Your task to perform on an android device: install app "Roku - Official Remote Control" Image 0: 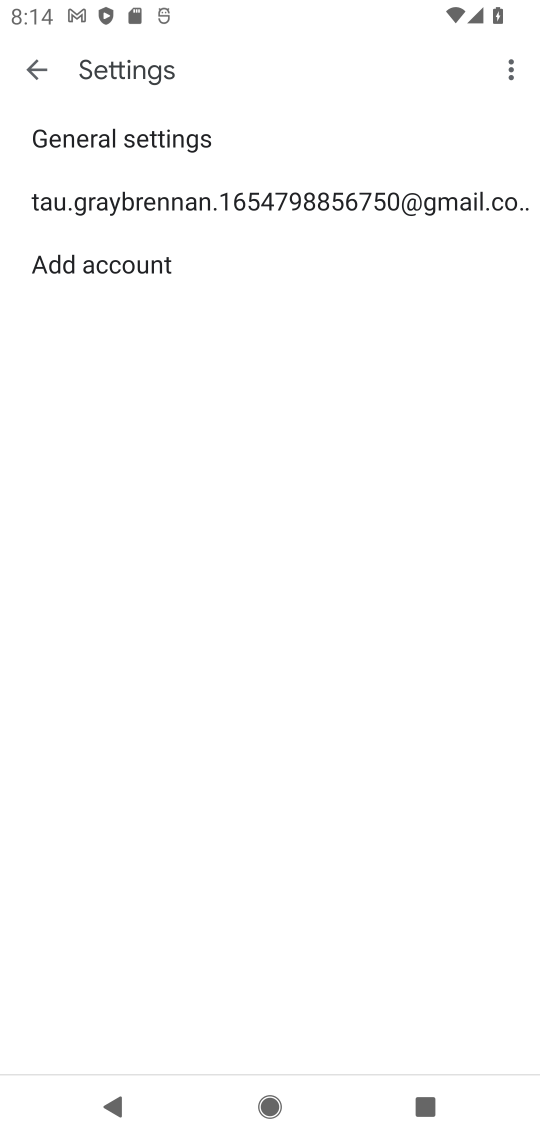
Step 0: press home button
Your task to perform on an android device: install app "Roku - Official Remote Control" Image 1: 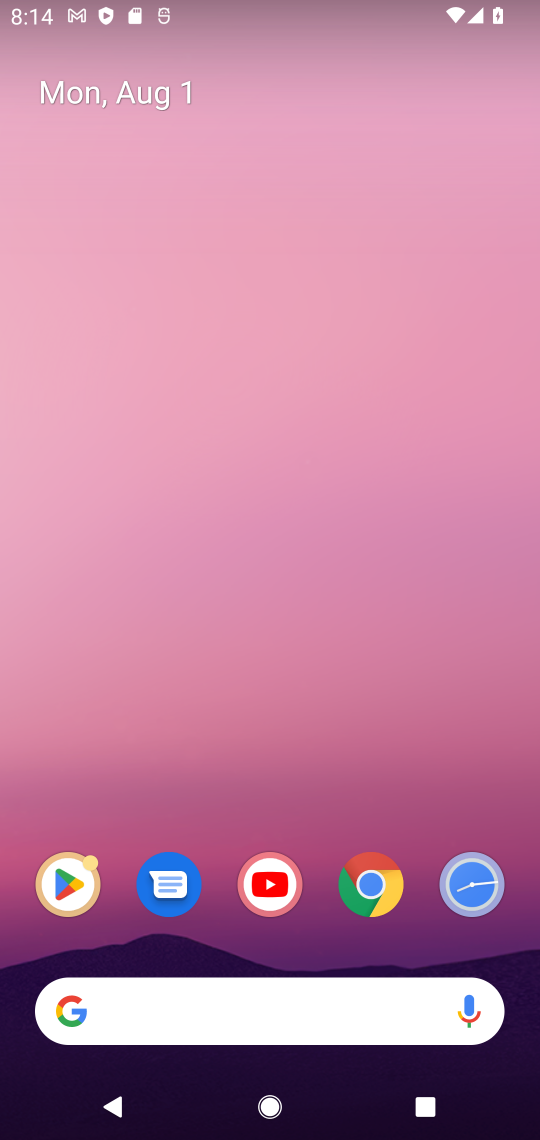
Step 1: drag from (240, 554) to (267, 111)
Your task to perform on an android device: install app "Roku - Official Remote Control" Image 2: 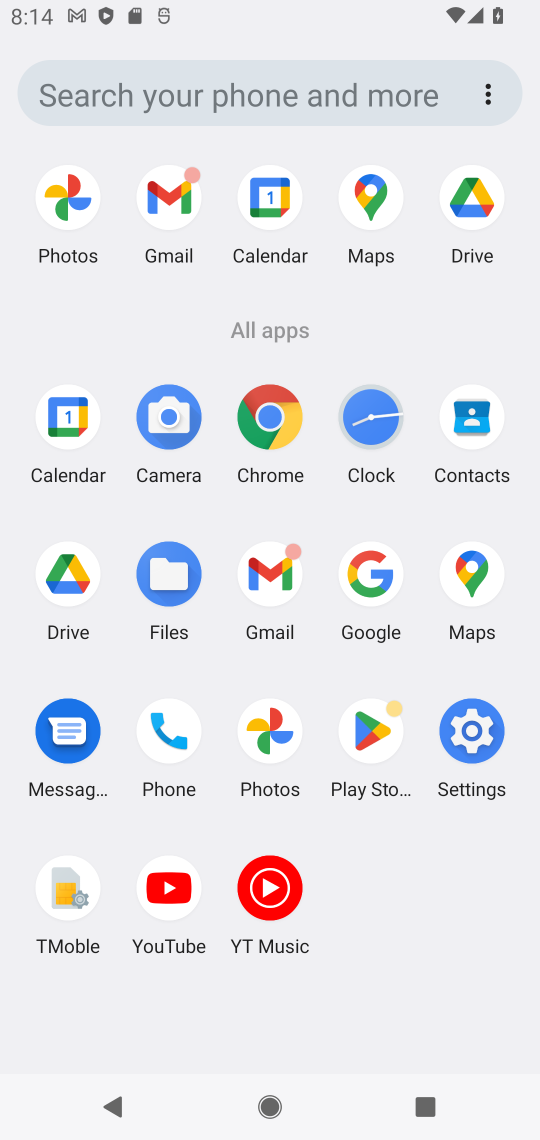
Step 2: click (369, 739)
Your task to perform on an android device: install app "Roku - Official Remote Control" Image 3: 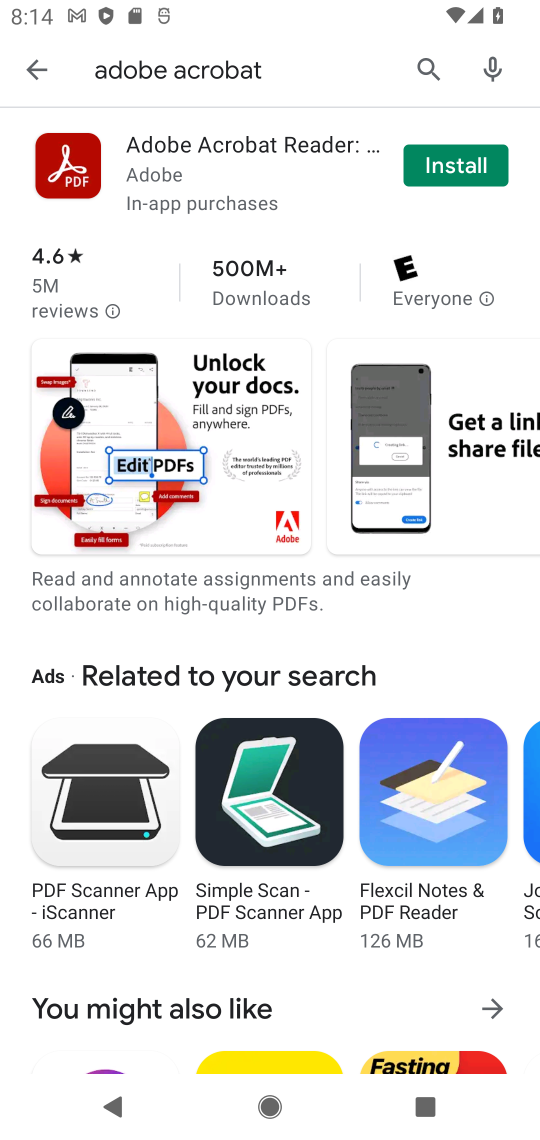
Step 3: click (425, 64)
Your task to perform on an android device: install app "Roku - Official Remote Control" Image 4: 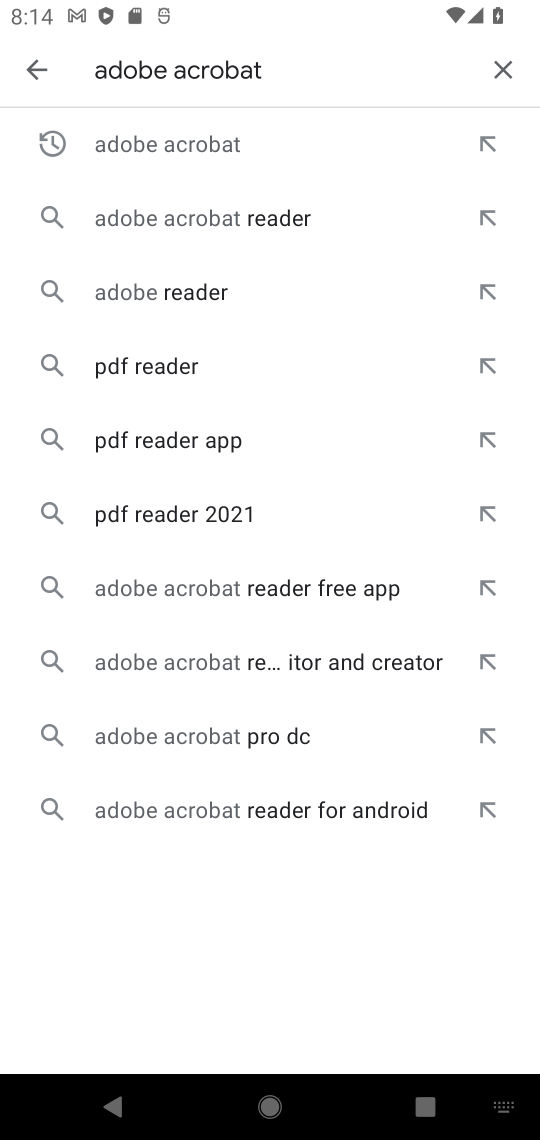
Step 4: click (512, 75)
Your task to perform on an android device: install app "Roku - Official Remote Control" Image 5: 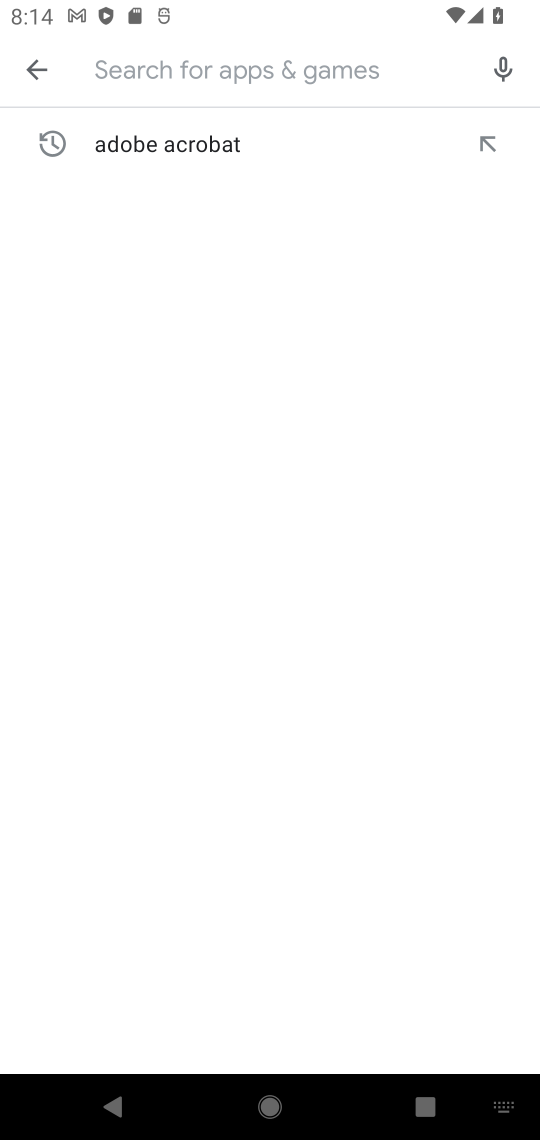
Step 5: type "roku"
Your task to perform on an android device: install app "Roku - Official Remote Control" Image 6: 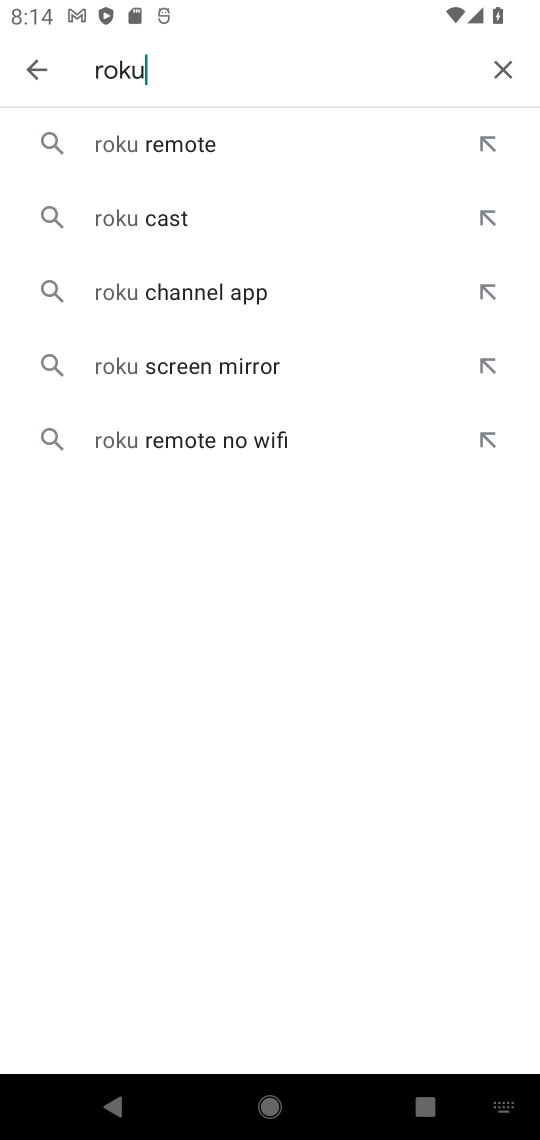
Step 6: click (206, 157)
Your task to perform on an android device: install app "Roku - Official Remote Control" Image 7: 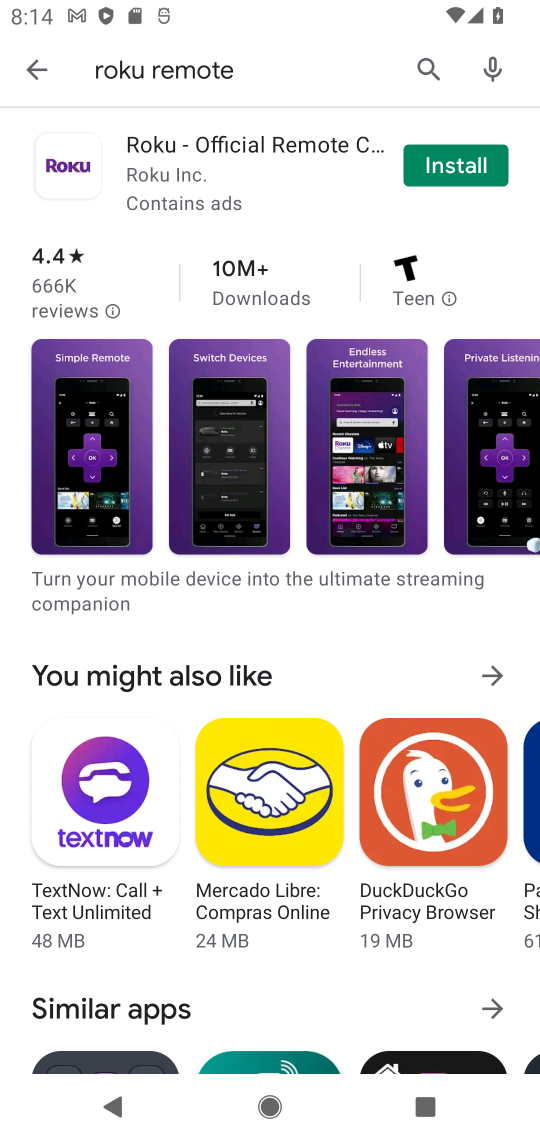
Step 7: click (483, 160)
Your task to perform on an android device: install app "Roku - Official Remote Control" Image 8: 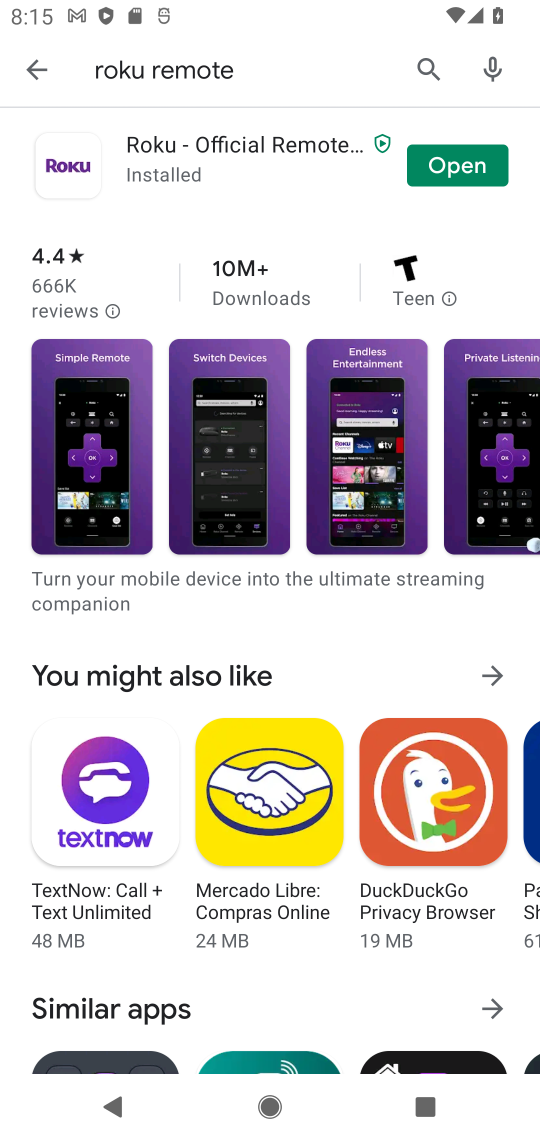
Step 8: task complete